Your task to perform on an android device: Open Yahoo.com Image 0: 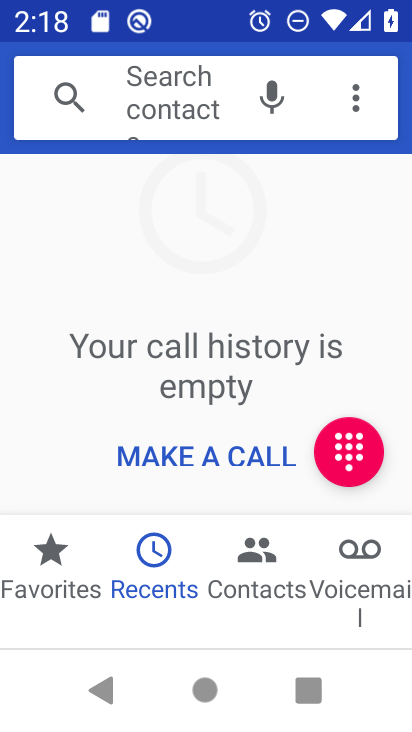
Step 0: press home button
Your task to perform on an android device: Open Yahoo.com Image 1: 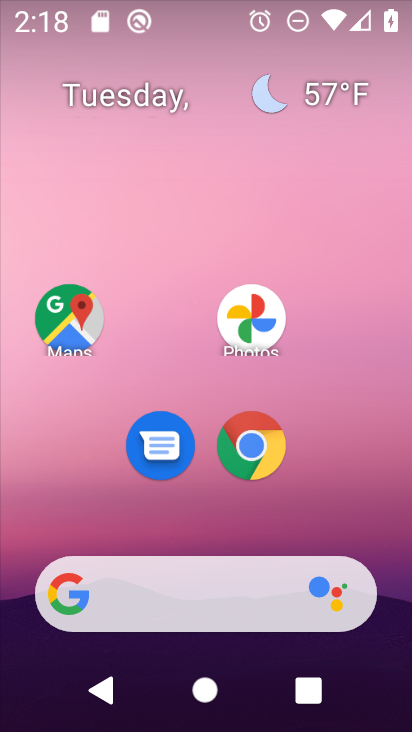
Step 1: drag from (348, 522) to (313, 120)
Your task to perform on an android device: Open Yahoo.com Image 2: 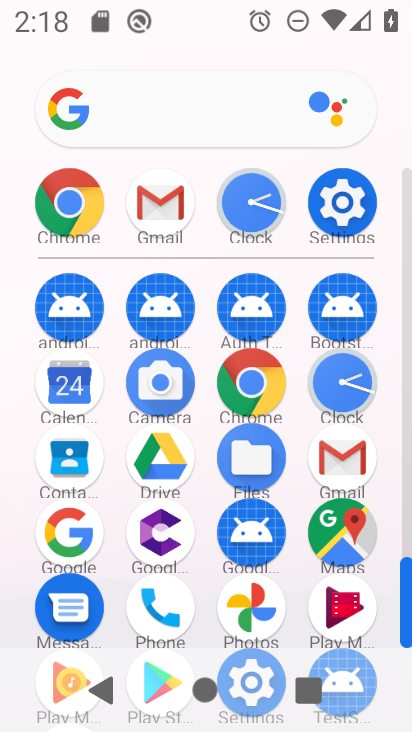
Step 2: click (269, 397)
Your task to perform on an android device: Open Yahoo.com Image 3: 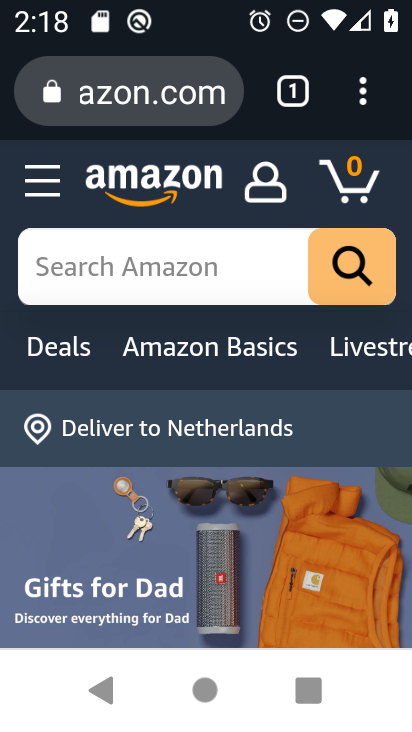
Step 3: press back button
Your task to perform on an android device: Open Yahoo.com Image 4: 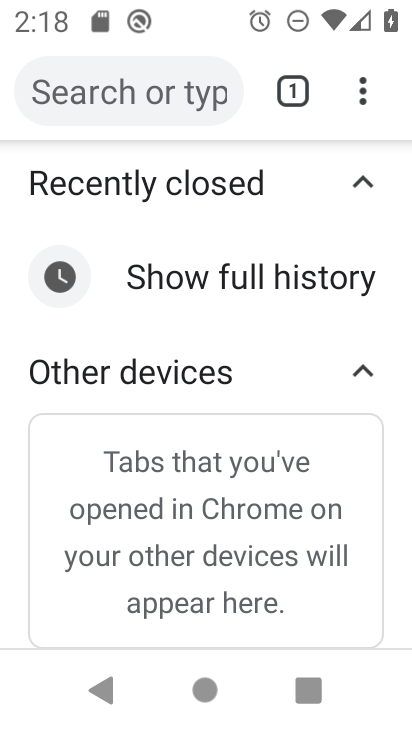
Step 4: press back button
Your task to perform on an android device: Open Yahoo.com Image 5: 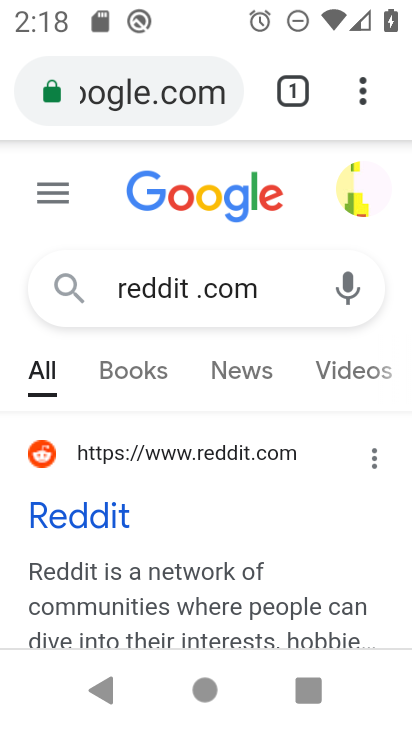
Step 5: click (171, 122)
Your task to perform on an android device: Open Yahoo.com Image 6: 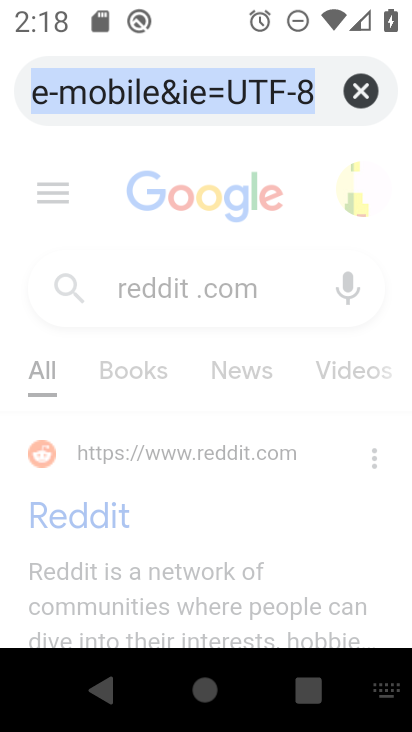
Step 6: click (367, 95)
Your task to perform on an android device: Open Yahoo.com Image 7: 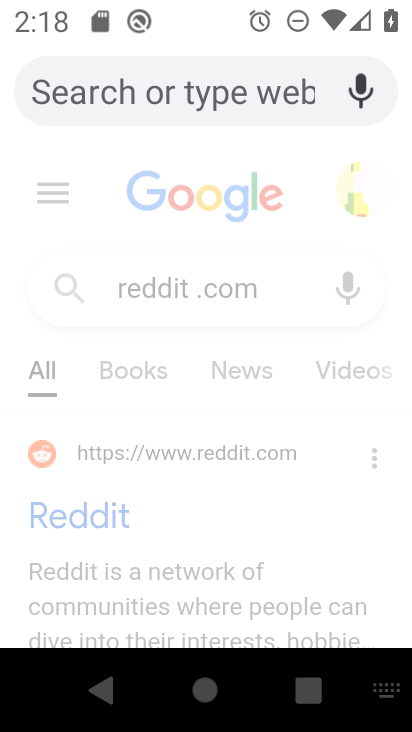
Step 7: type "yahoo.com"
Your task to perform on an android device: Open Yahoo.com Image 8: 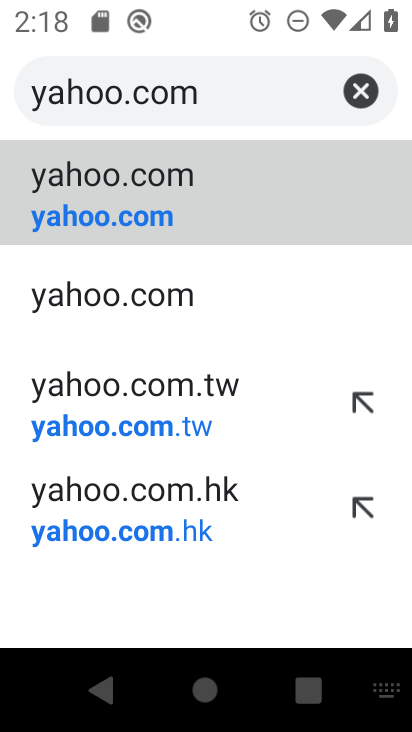
Step 8: click (247, 206)
Your task to perform on an android device: Open Yahoo.com Image 9: 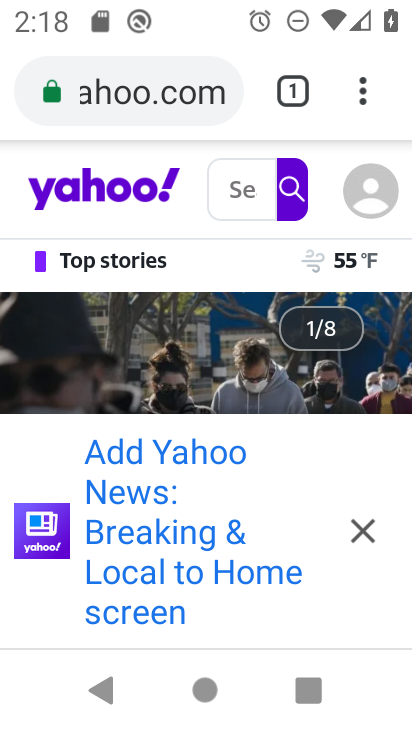
Step 9: task complete